Your task to perform on an android device: Go to Amazon Image 0: 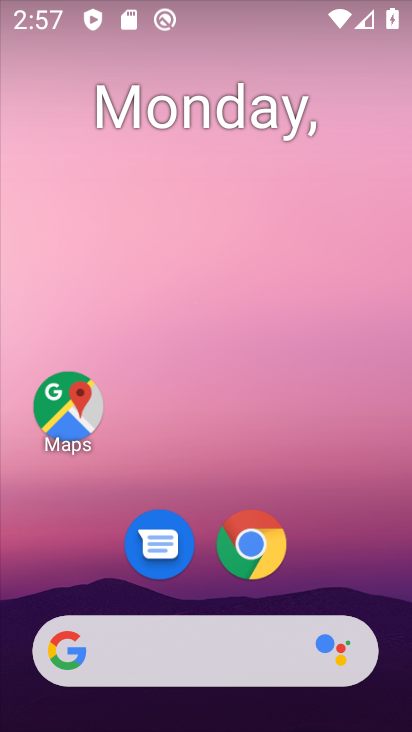
Step 0: click (254, 560)
Your task to perform on an android device: Go to Amazon Image 1: 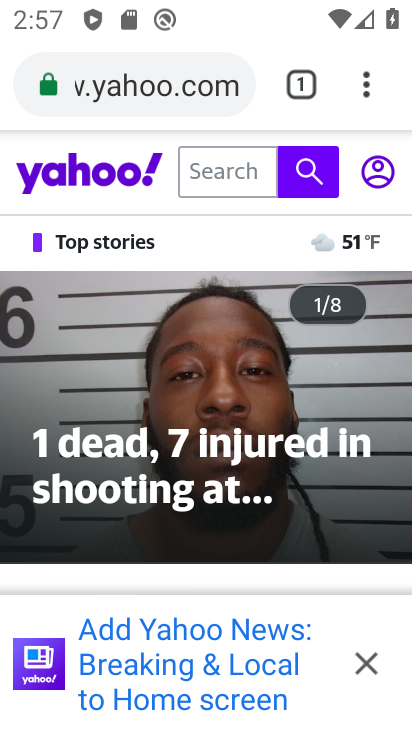
Step 1: click (306, 90)
Your task to perform on an android device: Go to Amazon Image 2: 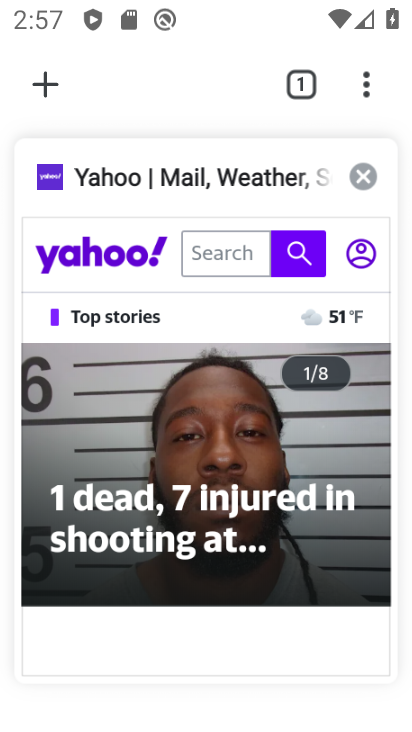
Step 2: click (368, 191)
Your task to perform on an android device: Go to Amazon Image 3: 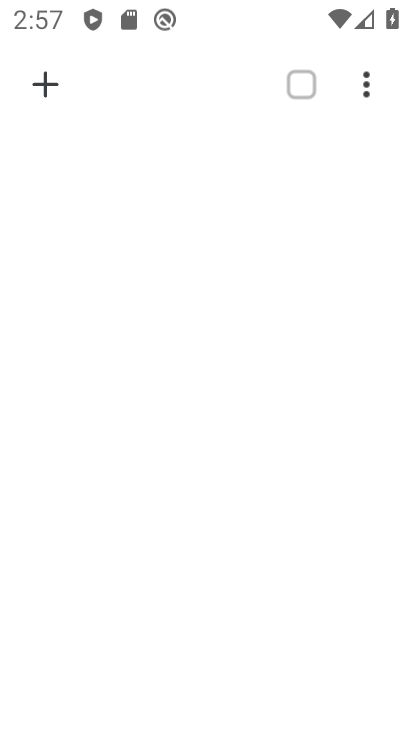
Step 3: click (58, 83)
Your task to perform on an android device: Go to Amazon Image 4: 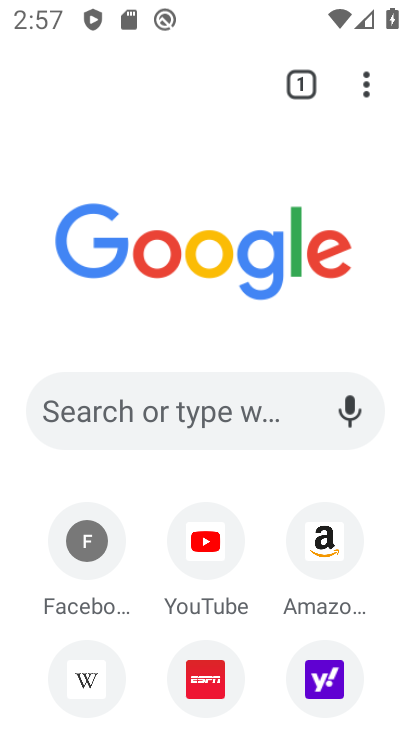
Step 4: click (340, 542)
Your task to perform on an android device: Go to Amazon Image 5: 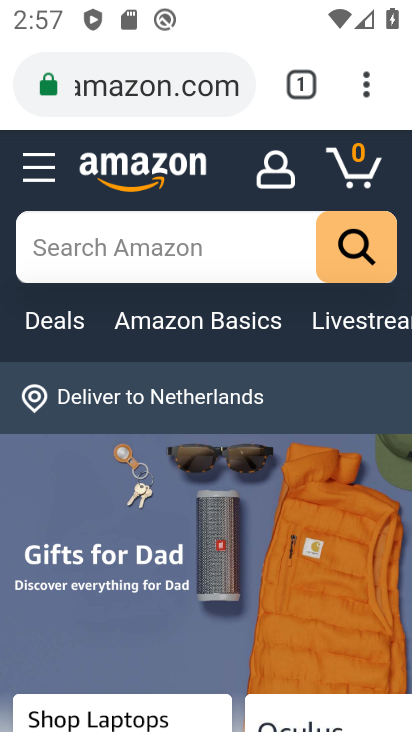
Step 5: task complete